Your task to perform on an android device: allow cookies in the chrome app Image 0: 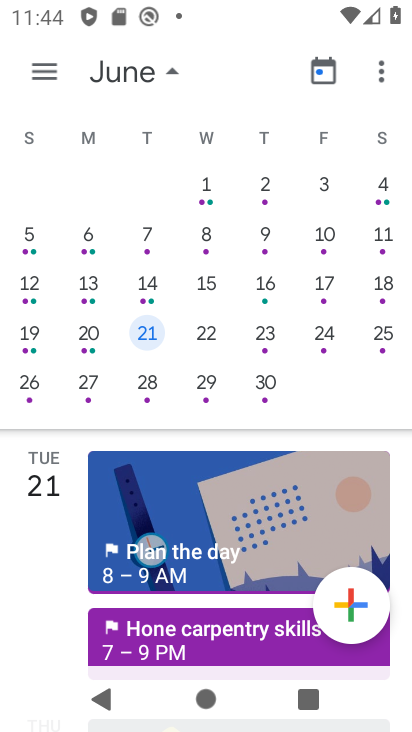
Step 0: press home button
Your task to perform on an android device: allow cookies in the chrome app Image 1: 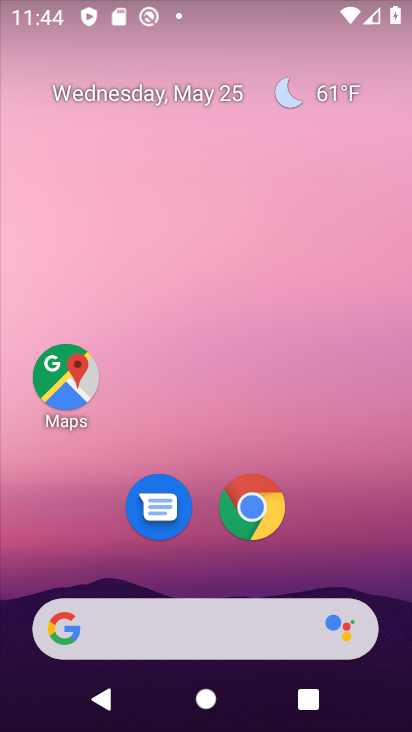
Step 1: click (270, 508)
Your task to perform on an android device: allow cookies in the chrome app Image 2: 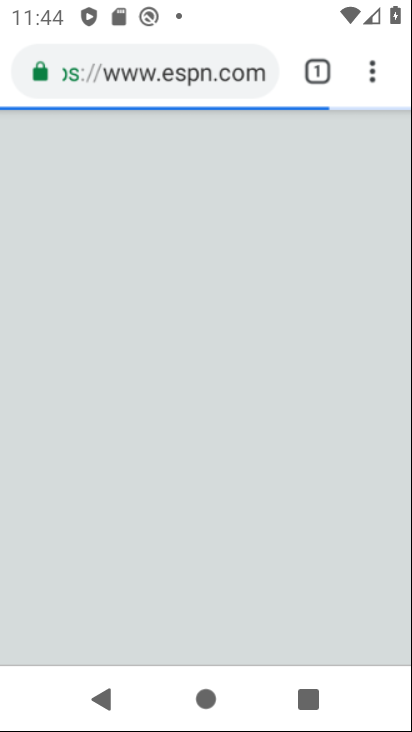
Step 2: click (375, 102)
Your task to perform on an android device: allow cookies in the chrome app Image 3: 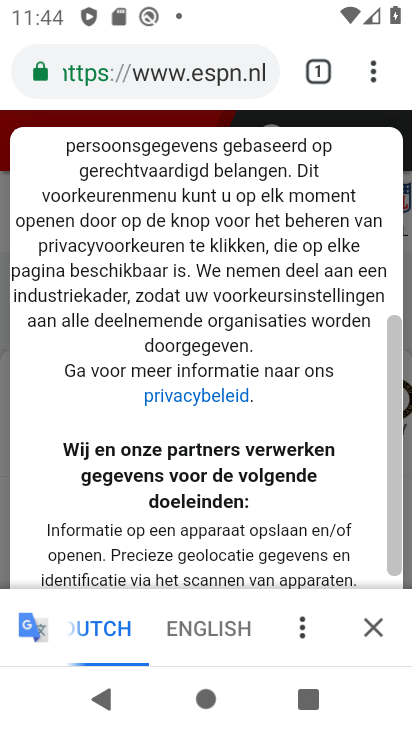
Step 3: click (376, 78)
Your task to perform on an android device: allow cookies in the chrome app Image 4: 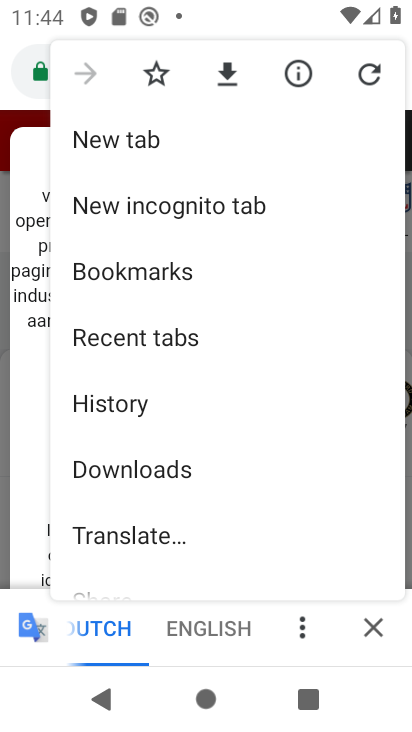
Step 4: drag from (170, 437) to (190, 286)
Your task to perform on an android device: allow cookies in the chrome app Image 5: 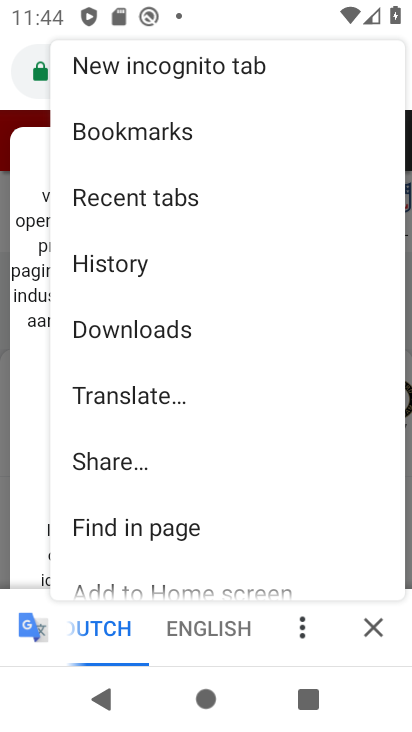
Step 5: drag from (146, 547) to (181, 318)
Your task to perform on an android device: allow cookies in the chrome app Image 6: 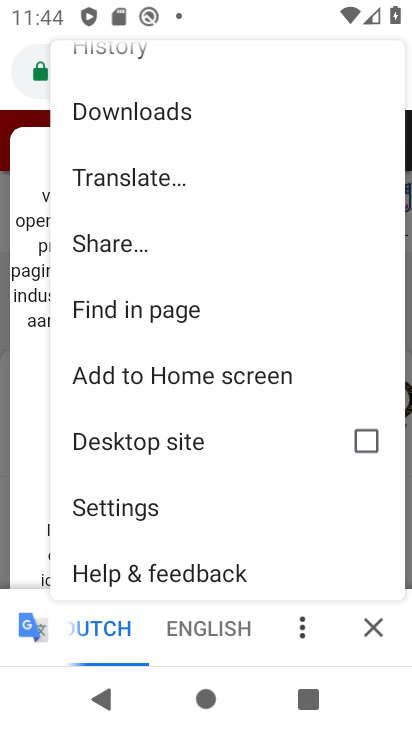
Step 6: click (167, 511)
Your task to perform on an android device: allow cookies in the chrome app Image 7: 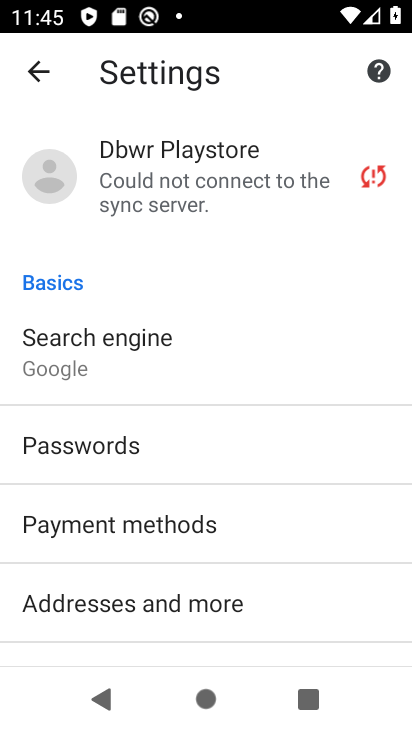
Step 7: task complete